Your task to perform on an android device: Is it going to rain today? Image 0: 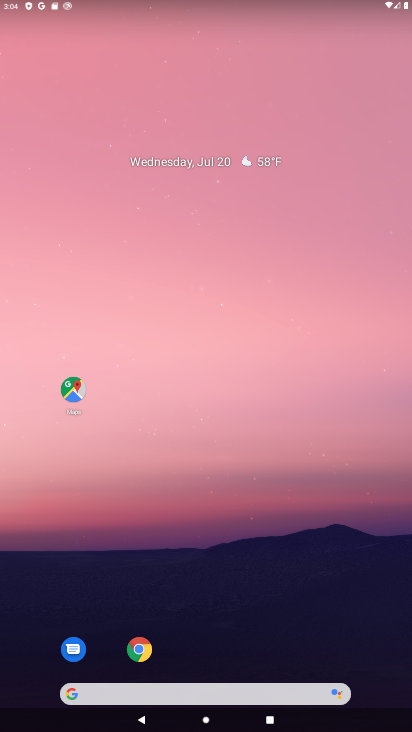
Step 0: drag from (227, 710) to (219, 199)
Your task to perform on an android device: Is it going to rain today? Image 1: 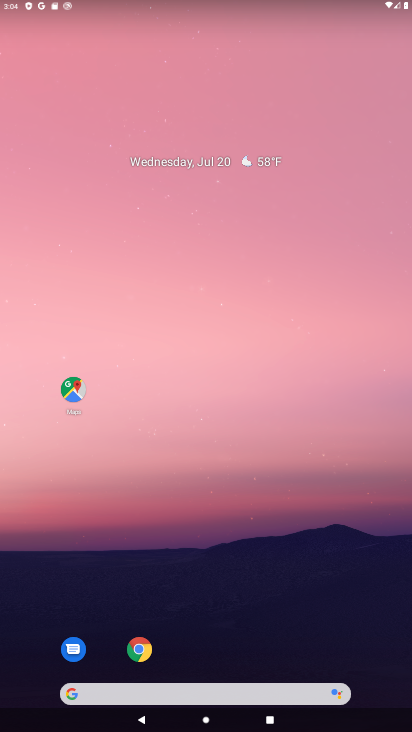
Step 1: click (224, 718)
Your task to perform on an android device: Is it going to rain today? Image 2: 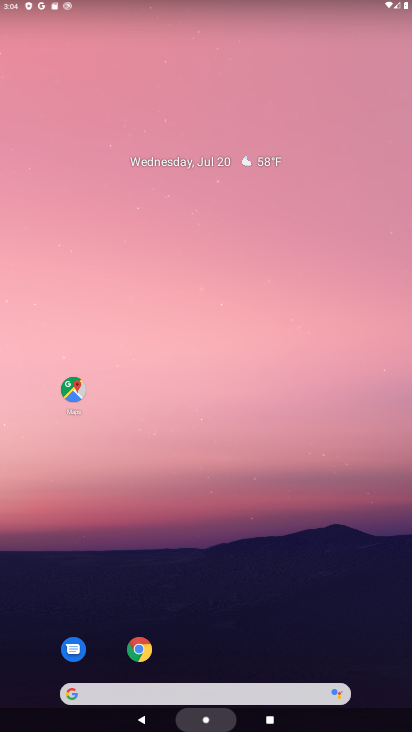
Step 2: click (232, 313)
Your task to perform on an android device: Is it going to rain today? Image 3: 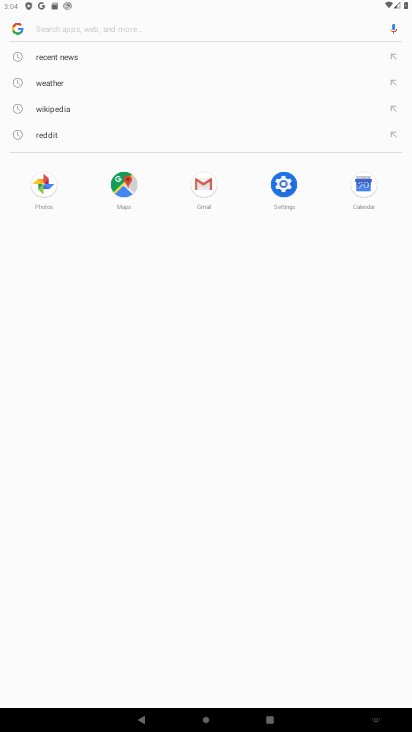
Step 3: press home button
Your task to perform on an android device: Is it going to rain today? Image 4: 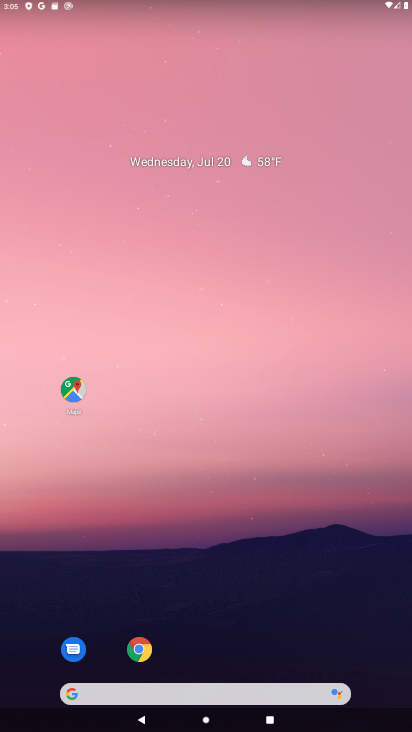
Step 4: drag from (209, 581) to (196, 194)
Your task to perform on an android device: Is it going to rain today? Image 5: 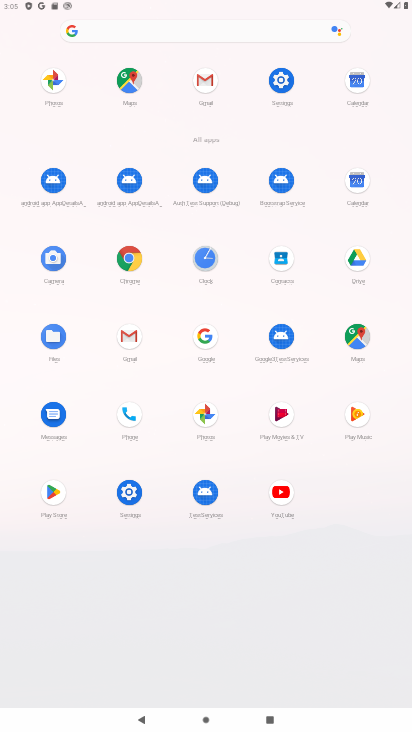
Step 5: click (207, 337)
Your task to perform on an android device: Is it going to rain today? Image 6: 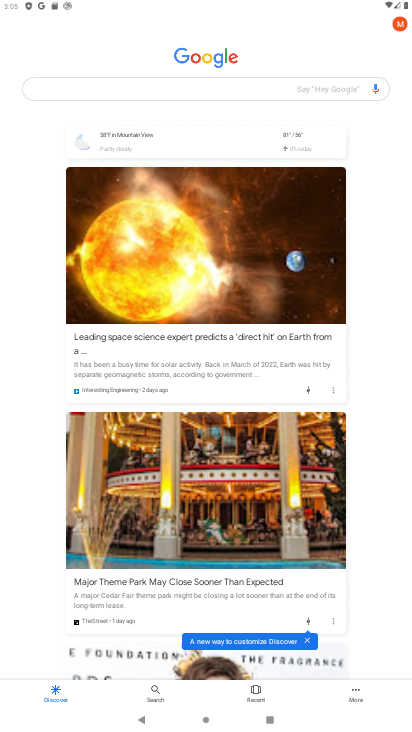
Step 6: click (134, 139)
Your task to perform on an android device: Is it going to rain today? Image 7: 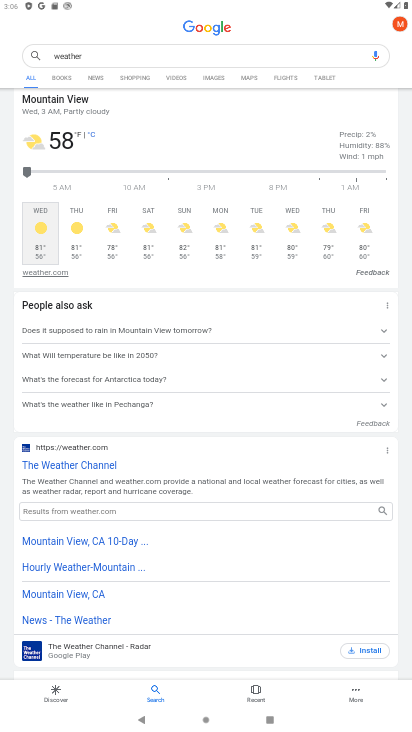
Step 7: task complete